Your task to perform on an android device: What's on my calendar today? Image 0: 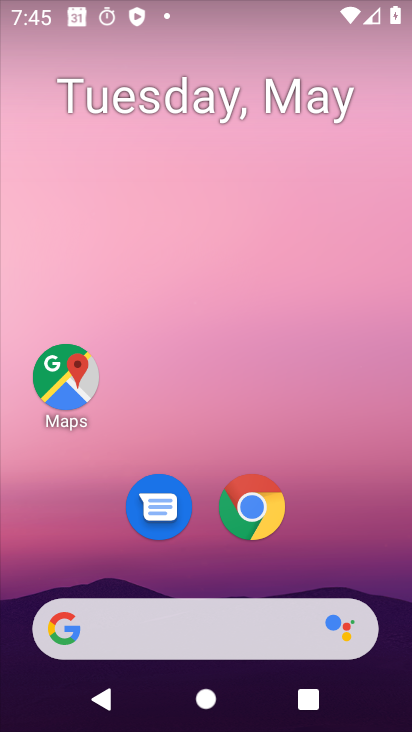
Step 0: drag from (227, 575) to (199, 10)
Your task to perform on an android device: What's on my calendar today? Image 1: 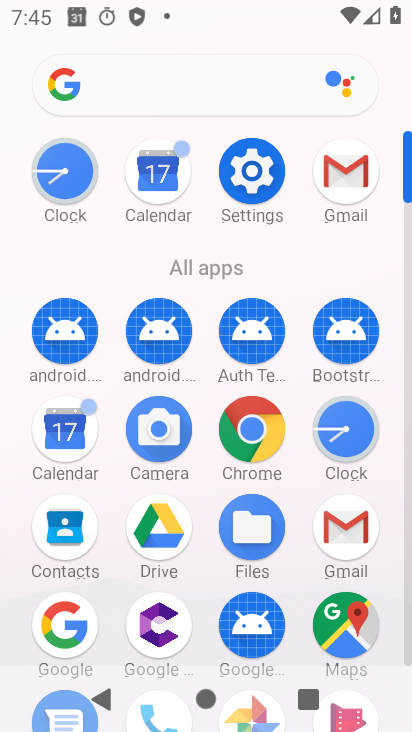
Step 1: click (156, 185)
Your task to perform on an android device: What's on my calendar today? Image 2: 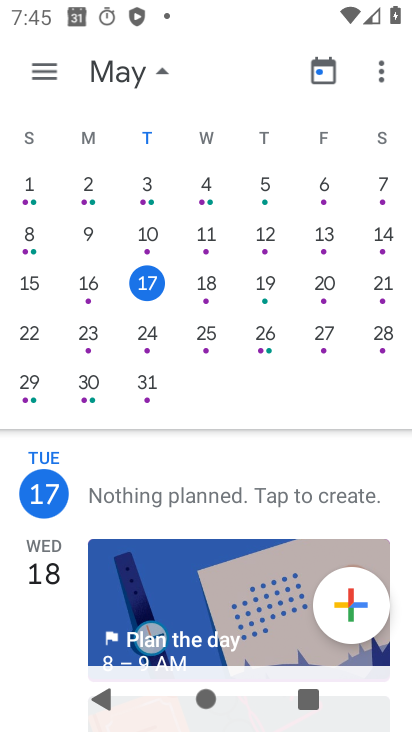
Step 2: click (144, 285)
Your task to perform on an android device: What's on my calendar today? Image 3: 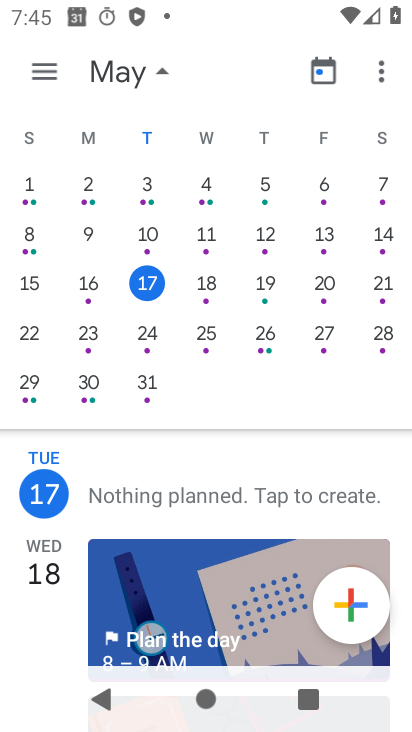
Step 3: task complete